Your task to perform on an android device: check storage Image 0: 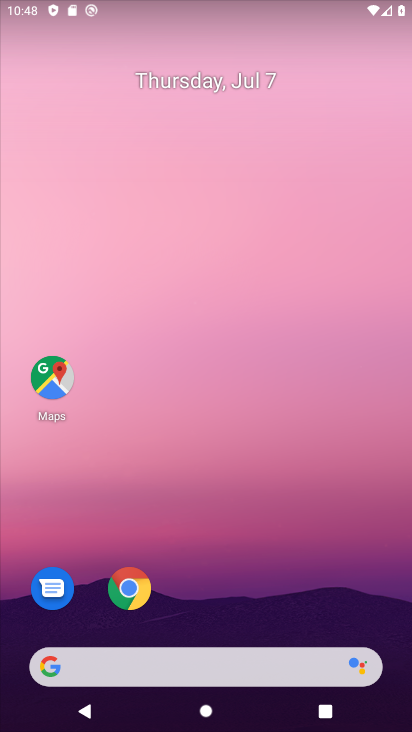
Step 0: drag from (271, 498) to (268, 164)
Your task to perform on an android device: check storage Image 1: 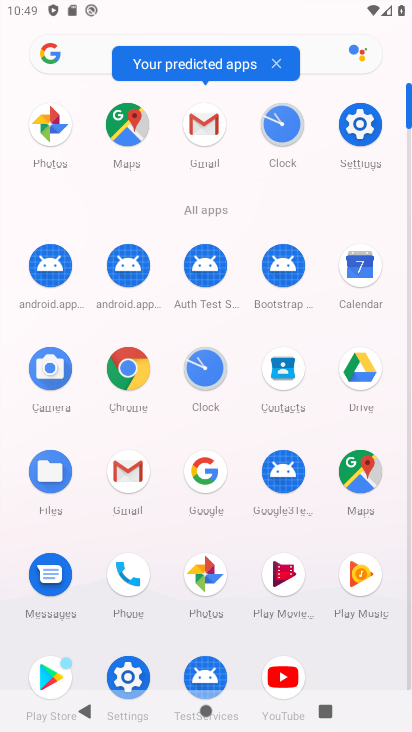
Step 1: click (366, 126)
Your task to perform on an android device: check storage Image 2: 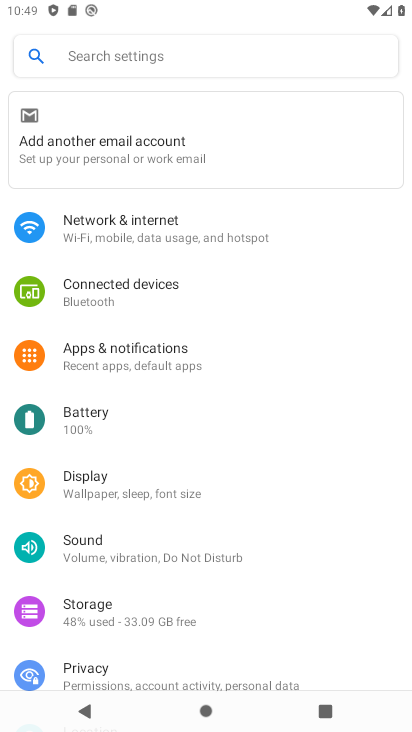
Step 2: click (117, 620)
Your task to perform on an android device: check storage Image 3: 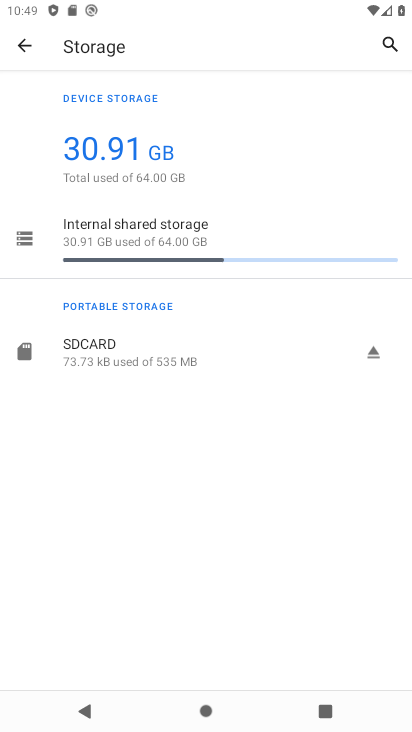
Step 3: task complete